Your task to perform on an android device: turn off notifications in google photos Image 0: 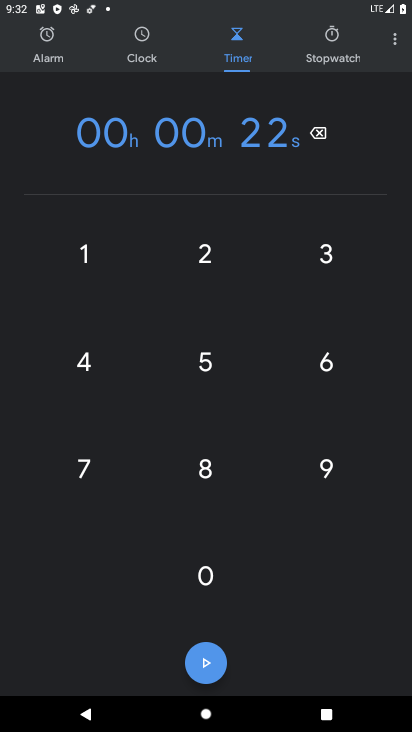
Step 0: press home button
Your task to perform on an android device: turn off notifications in google photos Image 1: 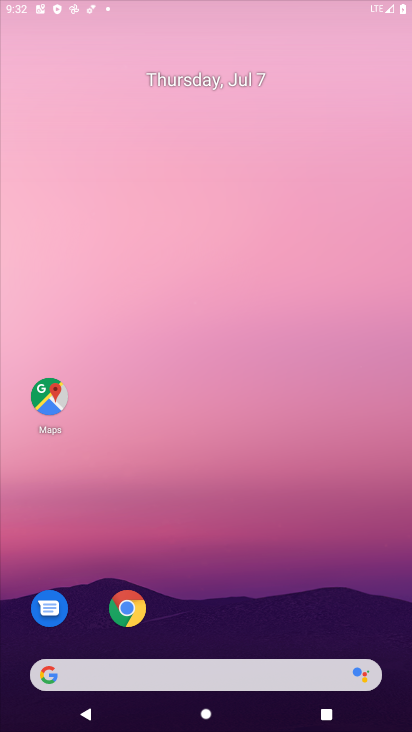
Step 1: drag from (227, 606) to (224, 119)
Your task to perform on an android device: turn off notifications in google photos Image 2: 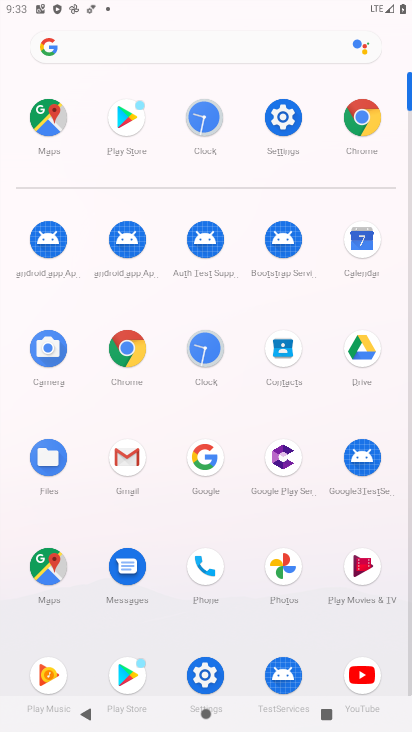
Step 2: click (285, 562)
Your task to perform on an android device: turn off notifications in google photos Image 3: 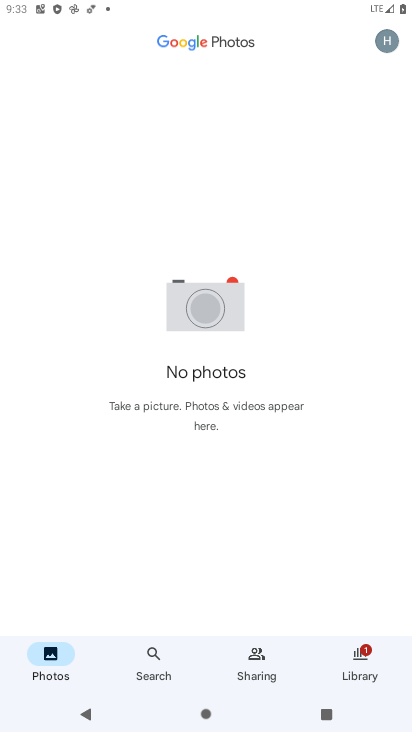
Step 3: click (384, 45)
Your task to perform on an android device: turn off notifications in google photos Image 4: 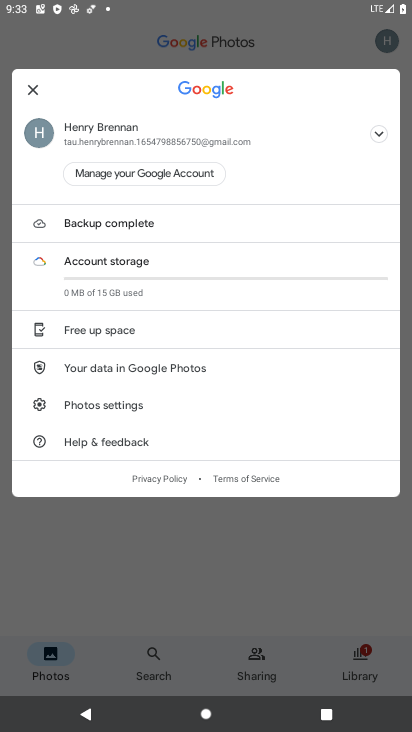
Step 4: click (137, 397)
Your task to perform on an android device: turn off notifications in google photos Image 5: 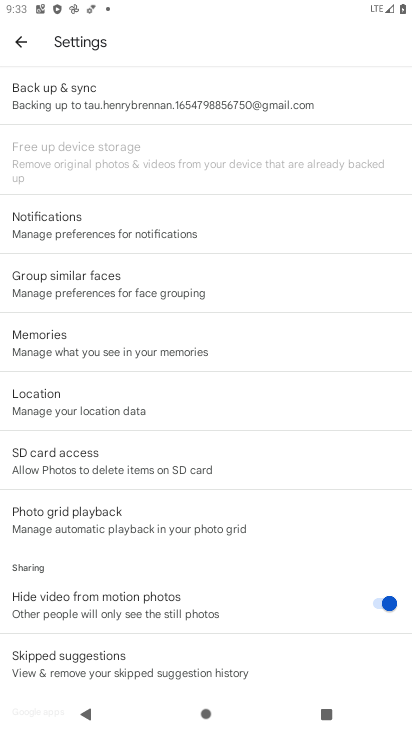
Step 5: click (103, 224)
Your task to perform on an android device: turn off notifications in google photos Image 6: 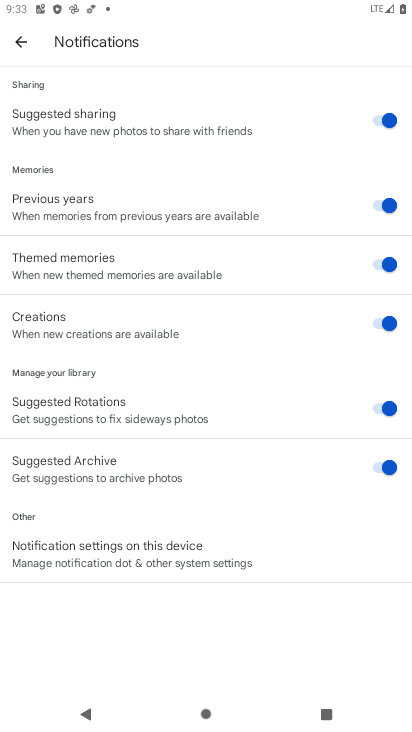
Step 6: drag from (170, 178) to (186, 359)
Your task to perform on an android device: turn off notifications in google photos Image 7: 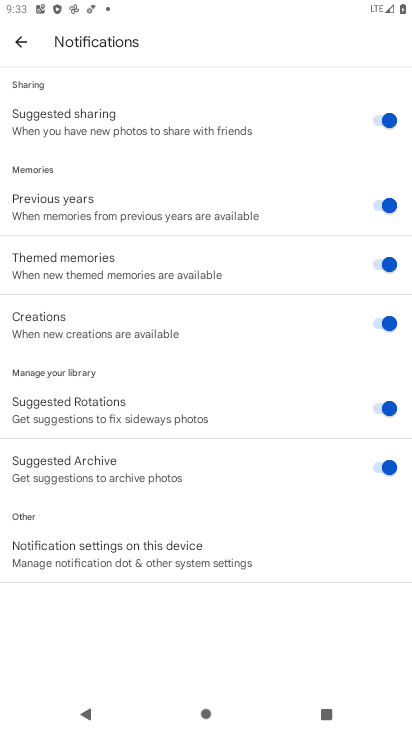
Step 7: click (122, 564)
Your task to perform on an android device: turn off notifications in google photos Image 8: 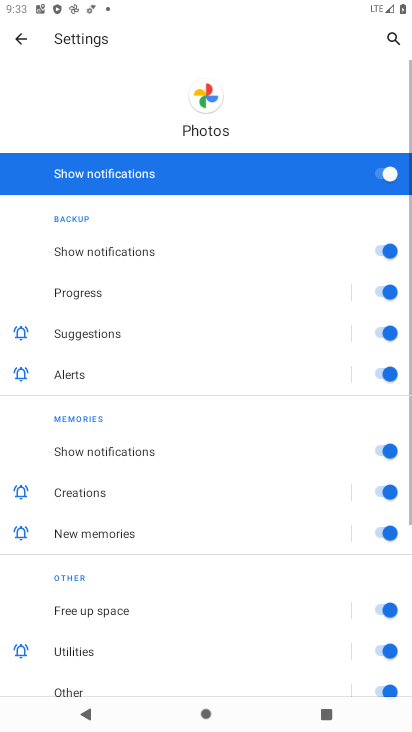
Step 8: click (388, 170)
Your task to perform on an android device: turn off notifications in google photos Image 9: 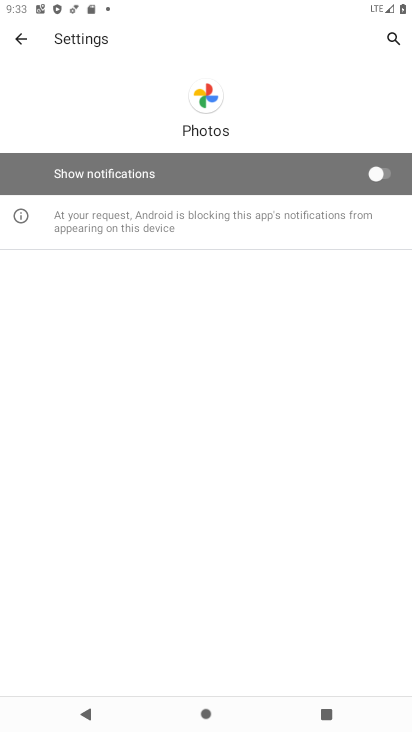
Step 9: task complete